Your task to perform on an android device: Open Yahoo.com Image 0: 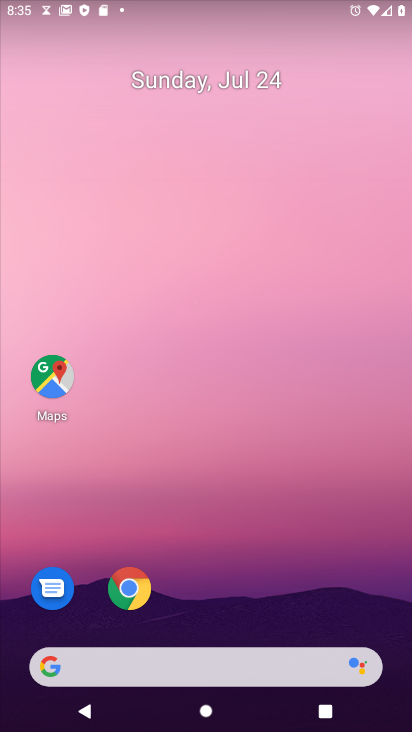
Step 0: press home button
Your task to perform on an android device: Open Yahoo.com Image 1: 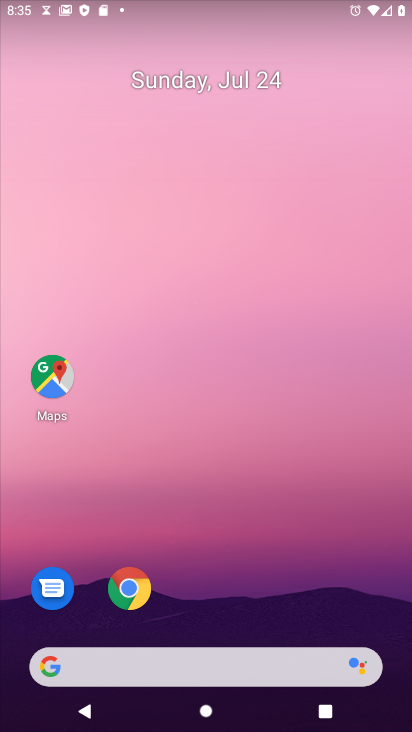
Step 1: drag from (219, 624) to (258, 72)
Your task to perform on an android device: Open Yahoo.com Image 2: 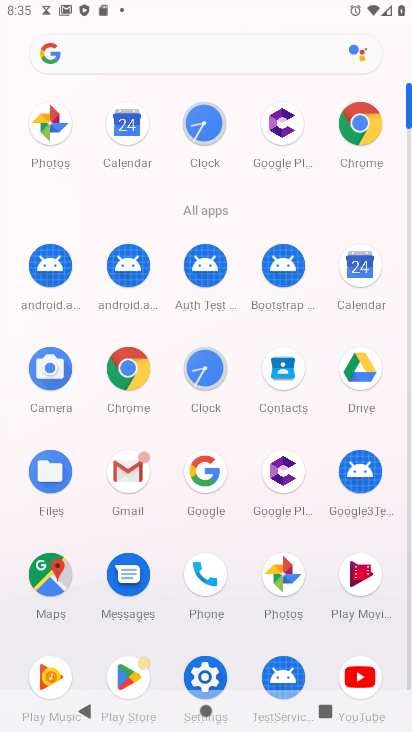
Step 2: click (362, 114)
Your task to perform on an android device: Open Yahoo.com Image 3: 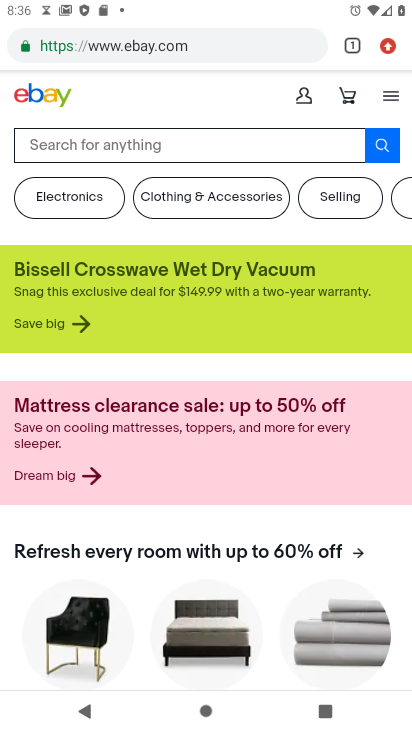
Step 3: click (352, 40)
Your task to perform on an android device: Open Yahoo.com Image 4: 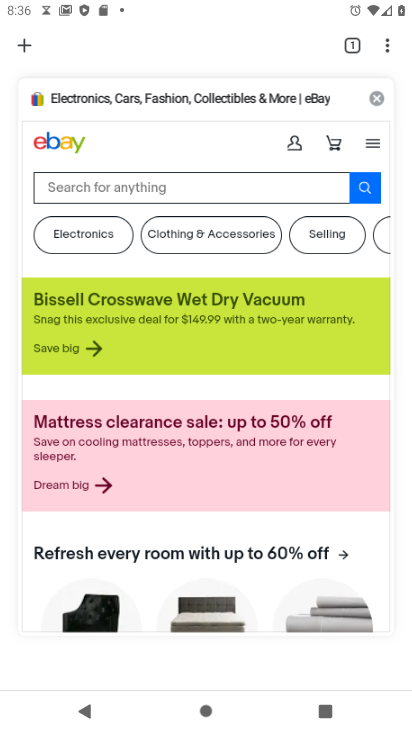
Step 4: click (19, 44)
Your task to perform on an android device: Open Yahoo.com Image 5: 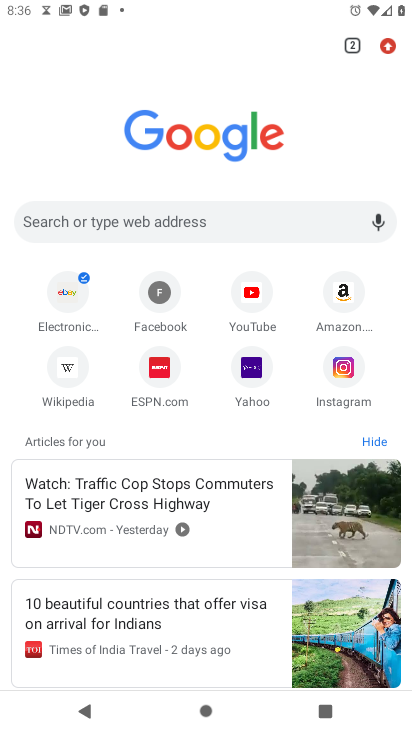
Step 5: click (253, 362)
Your task to perform on an android device: Open Yahoo.com Image 6: 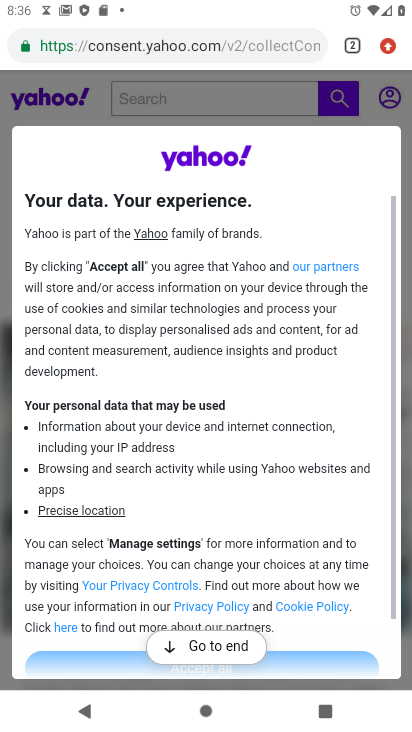
Step 6: click (167, 641)
Your task to perform on an android device: Open Yahoo.com Image 7: 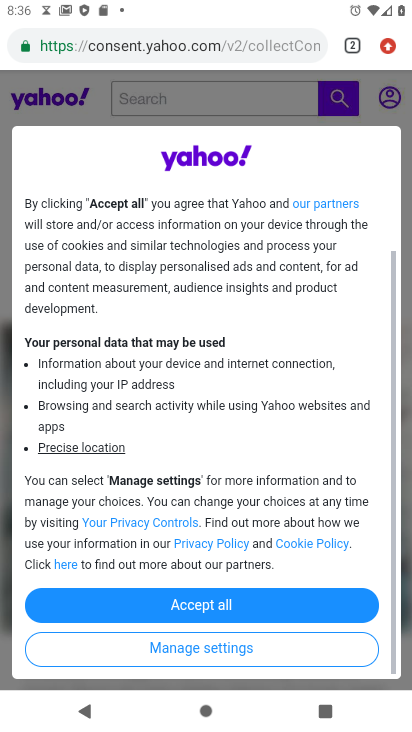
Step 7: click (229, 594)
Your task to perform on an android device: Open Yahoo.com Image 8: 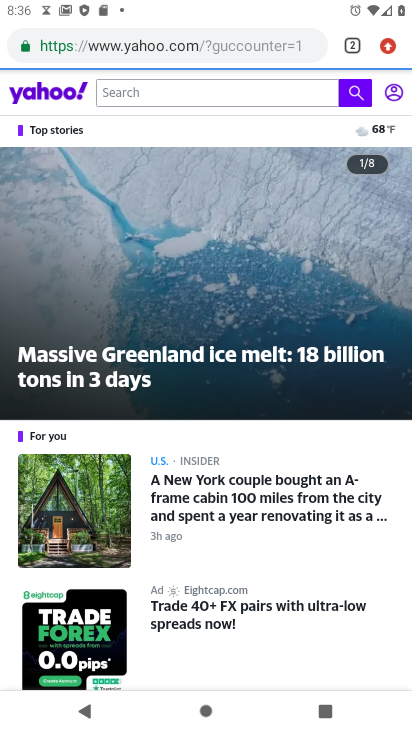
Step 8: task complete